Your task to perform on an android device: Open the calendar and show me this week's events? Image 0: 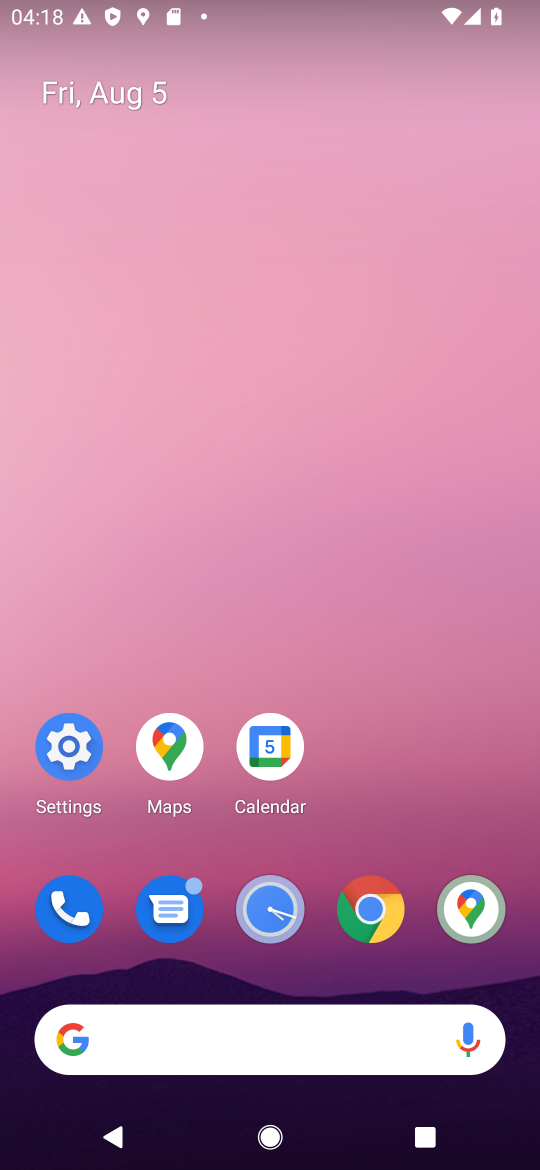
Step 0: click (253, 752)
Your task to perform on an android device: Open the calendar and show me this week's events? Image 1: 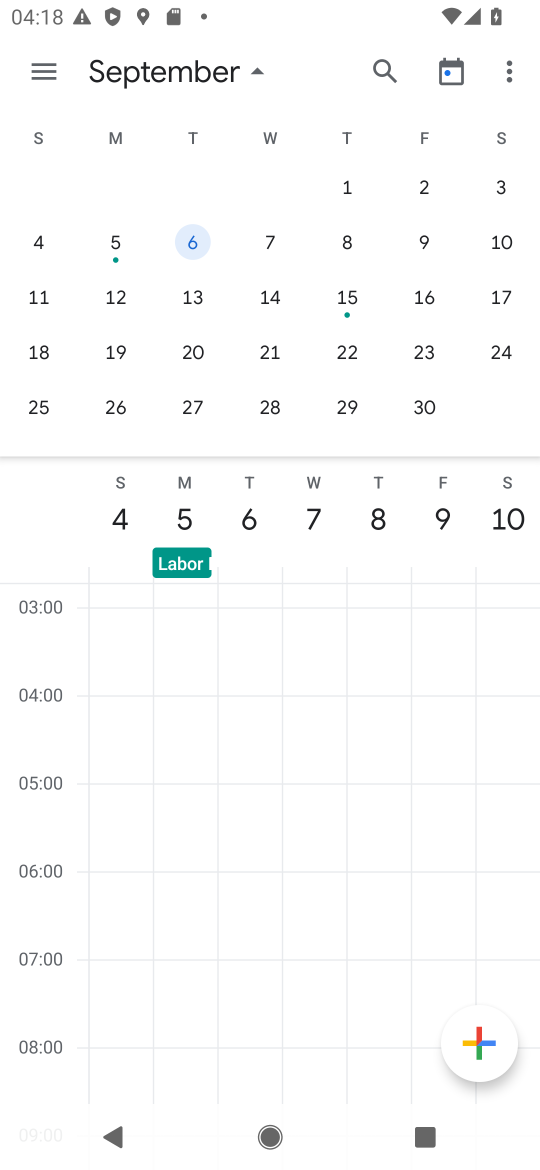
Step 1: task complete